Your task to perform on an android device: Do I have any events tomorrow? Image 0: 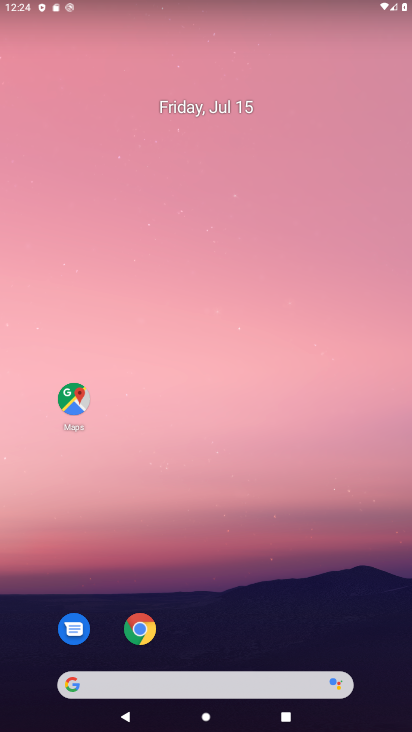
Step 0: drag from (259, 528) to (175, 10)
Your task to perform on an android device: Do I have any events tomorrow? Image 1: 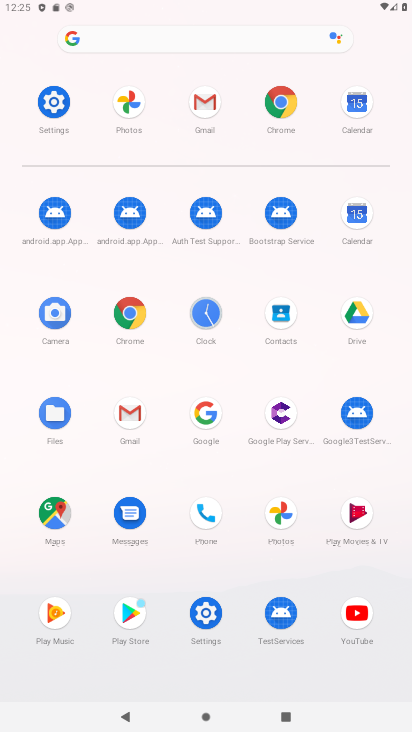
Step 1: click (363, 212)
Your task to perform on an android device: Do I have any events tomorrow? Image 2: 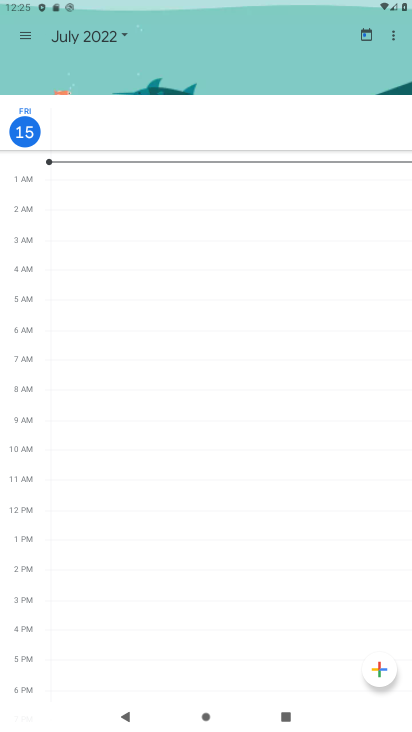
Step 2: click (85, 37)
Your task to perform on an android device: Do I have any events tomorrow? Image 3: 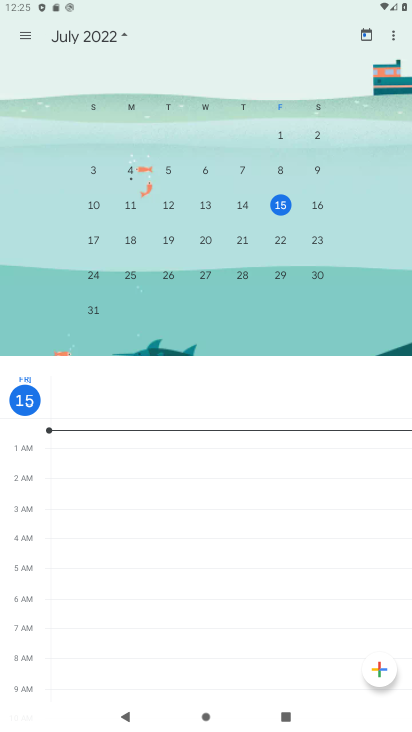
Step 3: click (322, 202)
Your task to perform on an android device: Do I have any events tomorrow? Image 4: 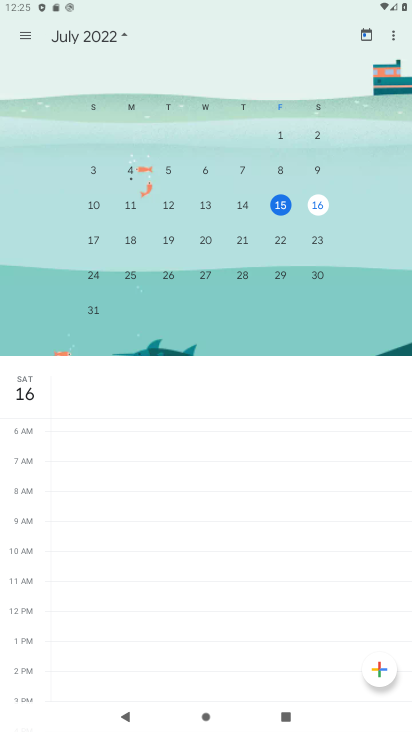
Step 4: task complete